Your task to perform on an android device: check battery use Image 0: 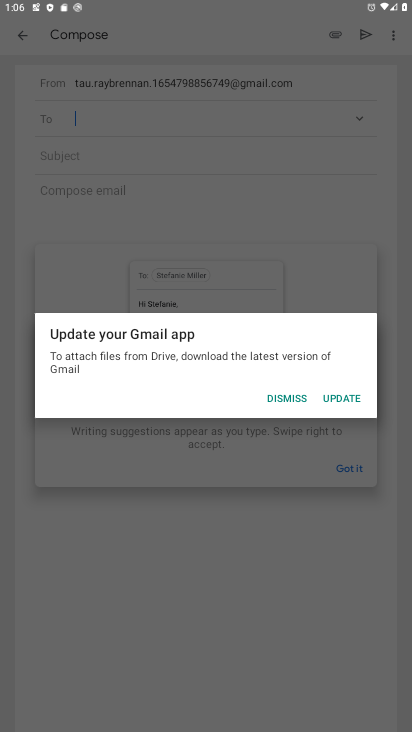
Step 0: press home button
Your task to perform on an android device: check battery use Image 1: 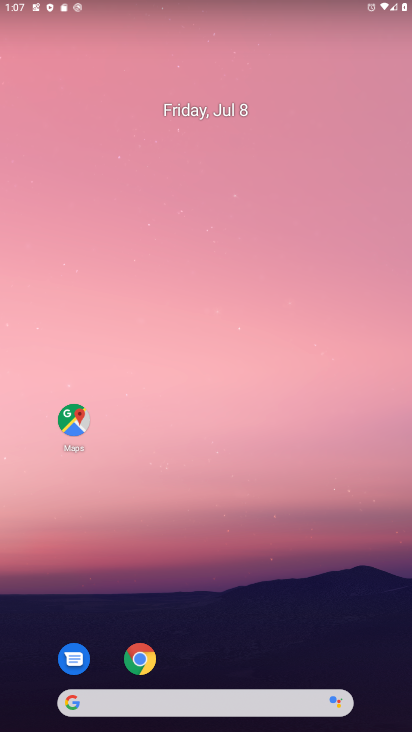
Step 1: drag from (274, 525) to (108, 38)
Your task to perform on an android device: check battery use Image 2: 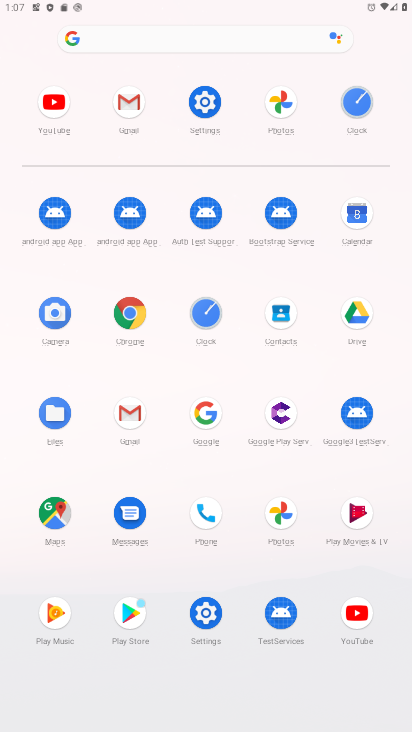
Step 2: click (205, 102)
Your task to perform on an android device: check battery use Image 3: 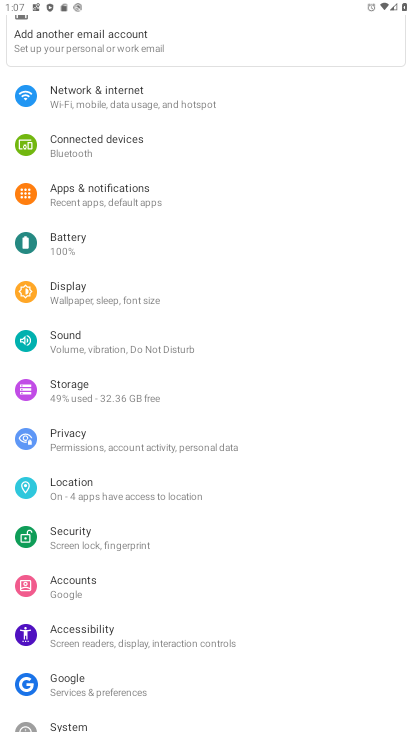
Step 3: click (79, 232)
Your task to perform on an android device: check battery use Image 4: 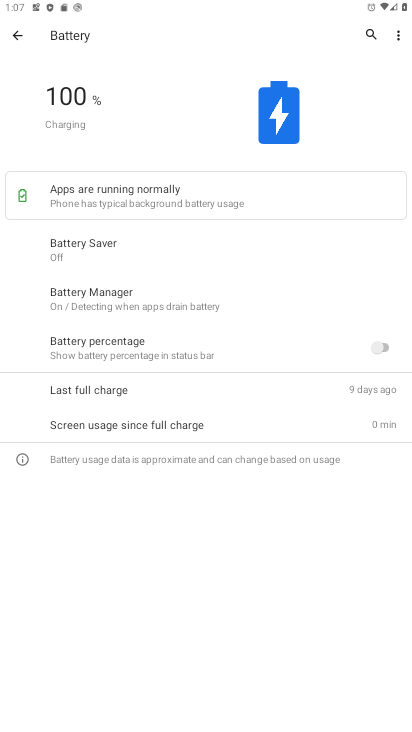
Step 4: task complete